Your task to perform on an android device: Go to Android settings Image 0: 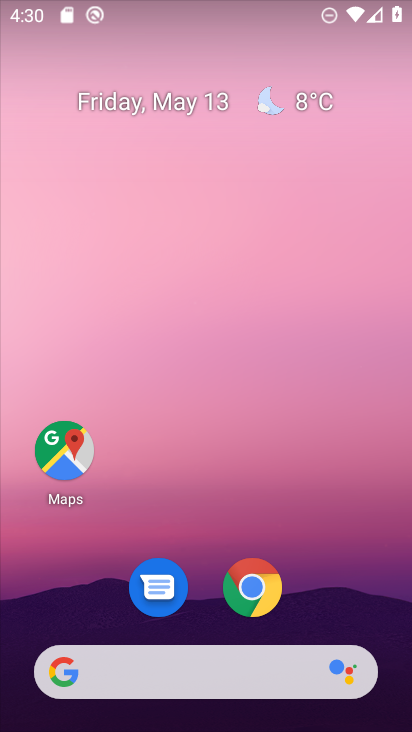
Step 0: drag from (197, 634) to (212, 240)
Your task to perform on an android device: Go to Android settings Image 1: 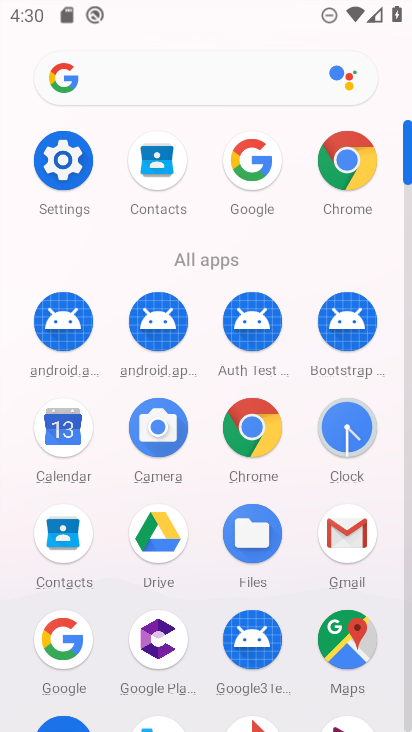
Step 1: click (88, 165)
Your task to perform on an android device: Go to Android settings Image 2: 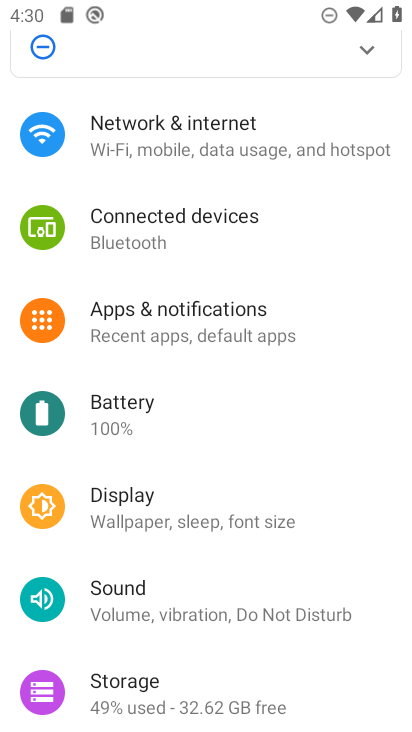
Step 2: task complete